Your task to perform on an android device: Show me the alarms in the clock app Image 0: 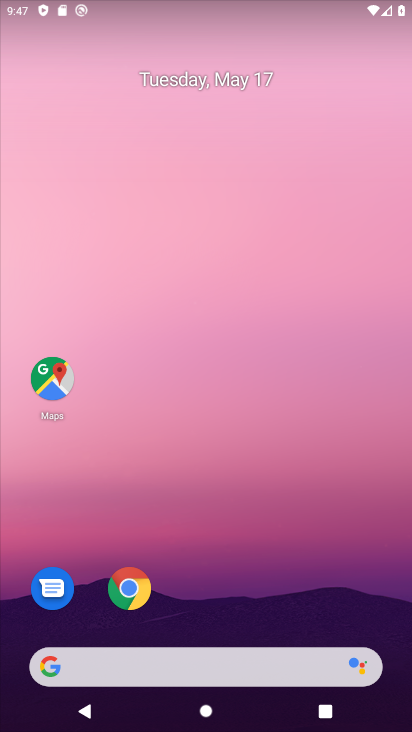
Step 0: drag from (241, 722) to (238, 295)
Your task to perform on an android device: Show me the alarms in the clock app Image 1: 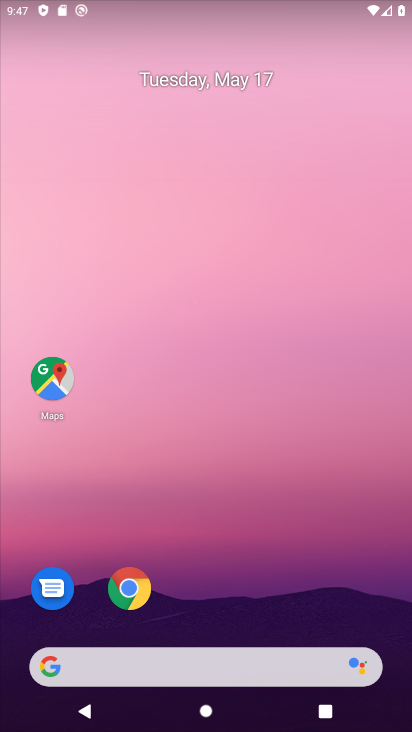
Step 1: drag from (224, 720) to (226, 13)
Your task to perform on an android device: Show me the alarms in the clock app Image 2: 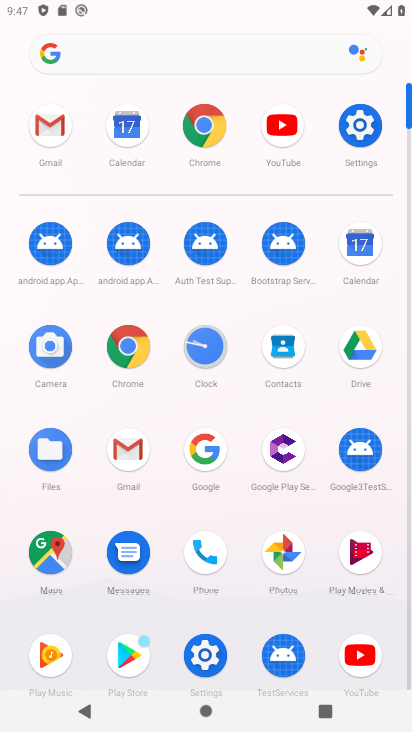
Step 2: click (204, 345)
Your task to perform on an android device: Show me the alarms in the clock app Image 3: 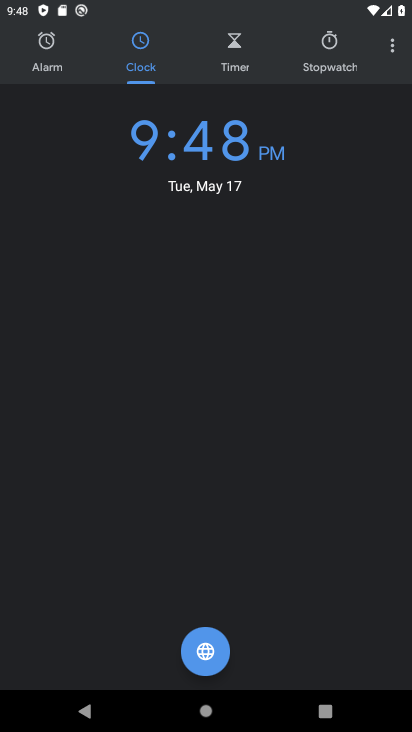
Step 3: click (52, 57)
Your task to perform on an android device: Show me the alarms in the clock app Image 4: 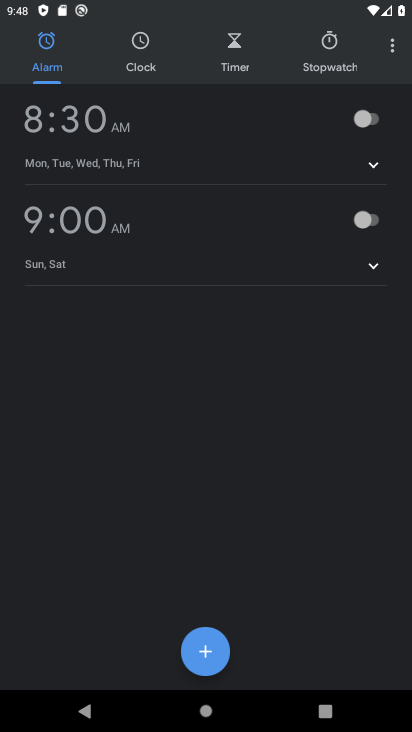
Step 4: task complete